Your task to perform on an android device: toggle show notifications on the lock screen Image 0: 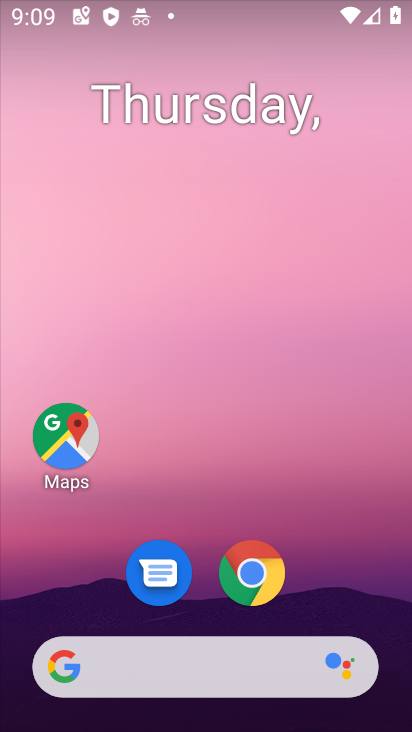
Step 0: drag from (359, 561) to (326, 250)
Your task to perform on an android device: toggle show notifications on the lock screen Image 1: 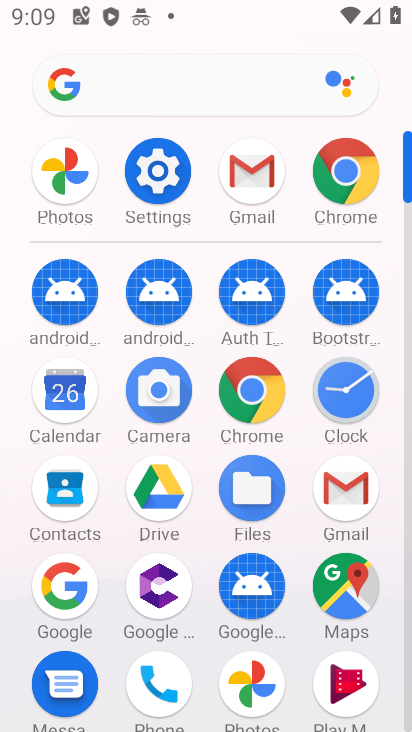
Step 1: click (160, 178)
Your task to perform on an android device: toggle show notifications on the lock screen Image 2: 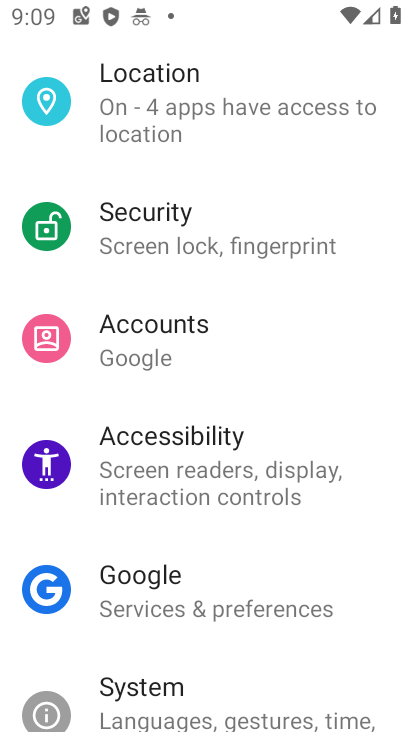
Step 2: drag from (247, 253) to (247, 551)
Your task to perform on an android device: toggle show notifications on the lock screen Image 3: 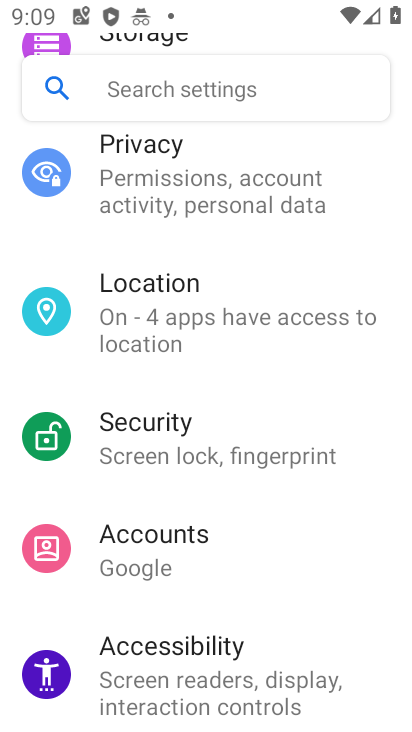
Step 3: drag from (271, 230) to (274, 544)
Your task to perform on an android device: toggle show notifications on the lock screen Image 4: 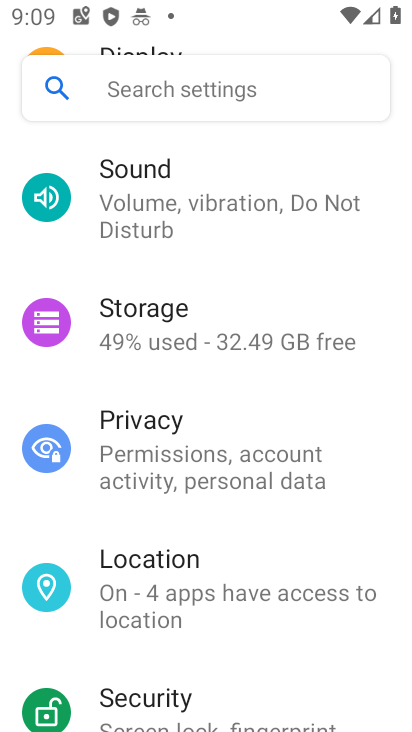
Step 4: drag from (281, 302) to (286, 534)
Your task to perform on an android device: toggle show notifications on the lock screen Image 5: 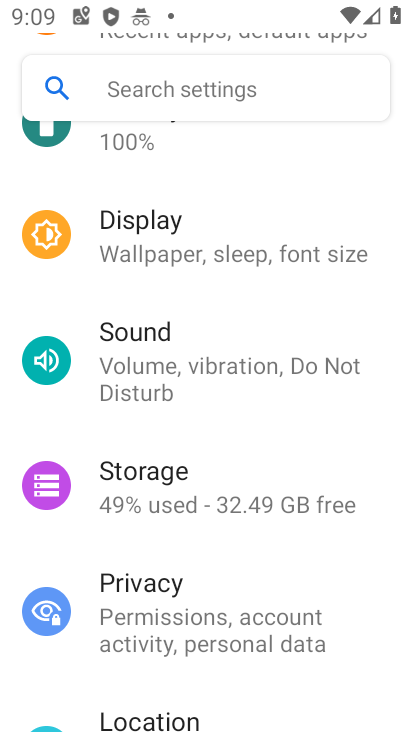
Step 5: drag from (275, 232) to (282, 557)
Your task to perform on an android device: toggle show notifications on the lock screen Image 6: 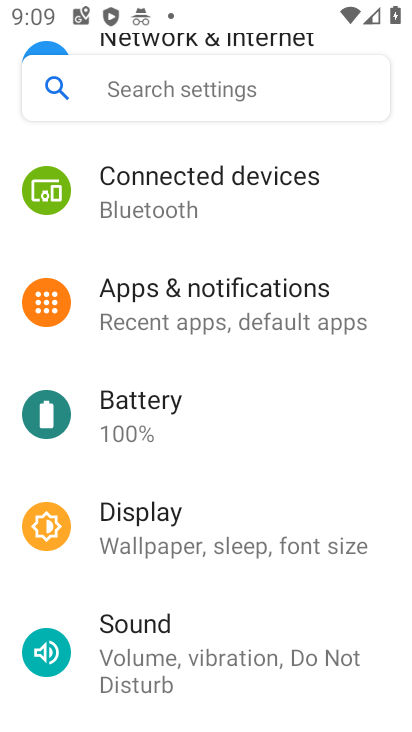
Step 6: click (257, 299)
Your task to perform on an android device: toggle show notifications on the lock screen Image 7: 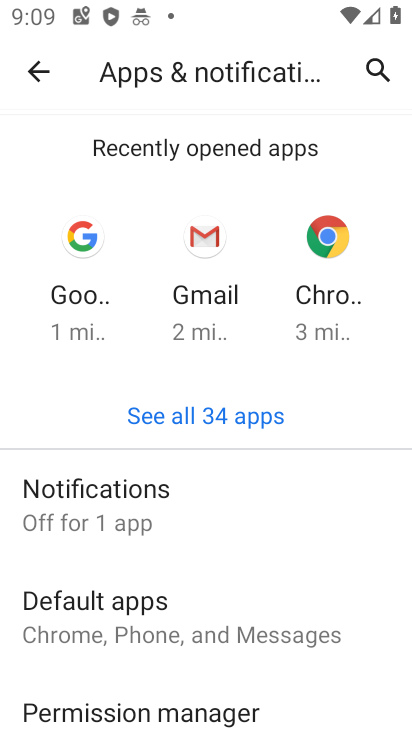
Step 7: drag from (215, 598) to (200, 303)
Your task to perform on an android device: toggle show notifications on the lock screen Image 8: 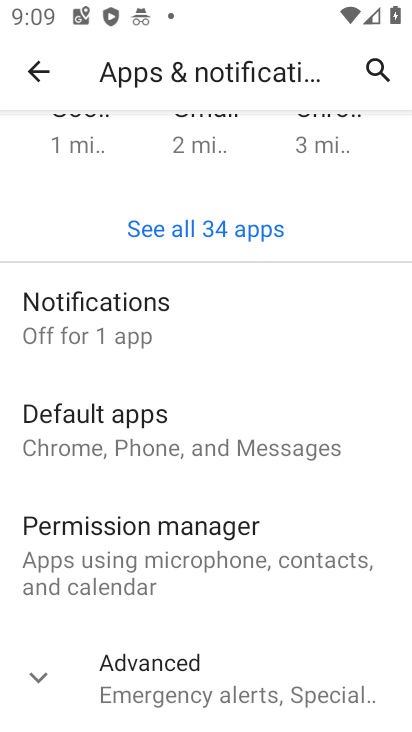
Step 8: click (142, 339)
Your task to perform on an android device: toggle show notifications on the lock screen Image 9: 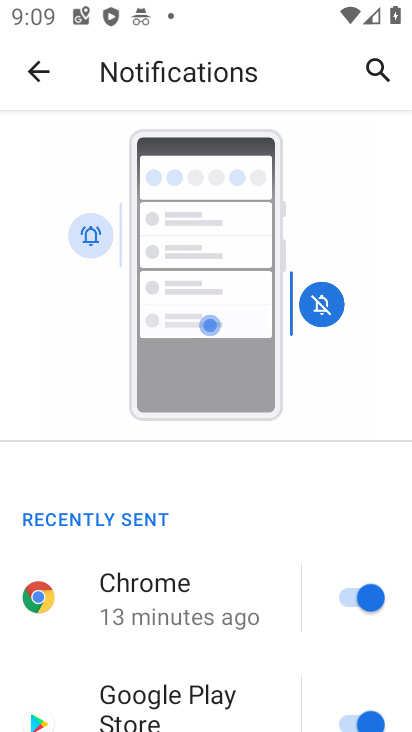
Step 9: drag from (239, 656) to (239, 362)
Your task to perform on an android device: toggle show notifications on the lock screen Image 10: 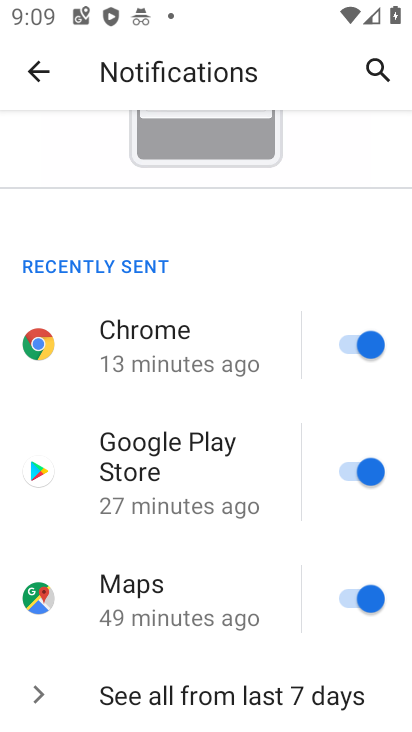
Step 10: drag from (224, 628) to (236, 348)
Your task to perform on an android device: toggle show notifications on the lock screen Image 11: 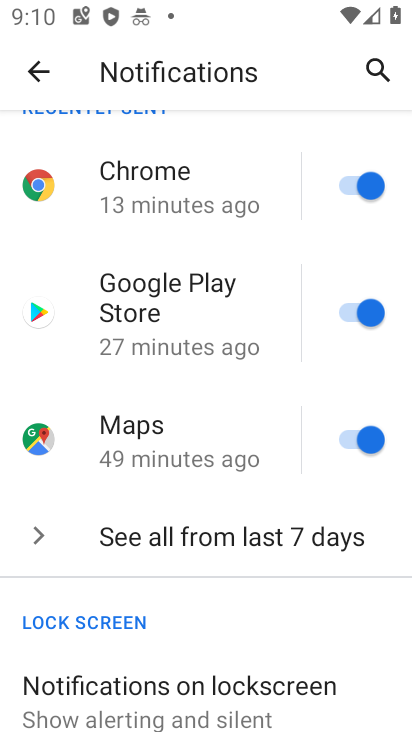
Step 11: drag from (225, 631) to (233, 389)
Your task to perform on an android device: toggle show notifications on the lock screen Image 12: 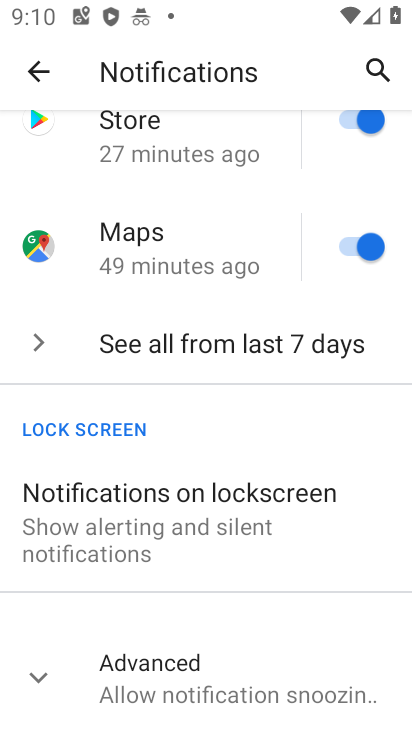
Step 12: click (219, 512)
Your task to perform on an android device: toggle show notifications on the lock screen Image 13: 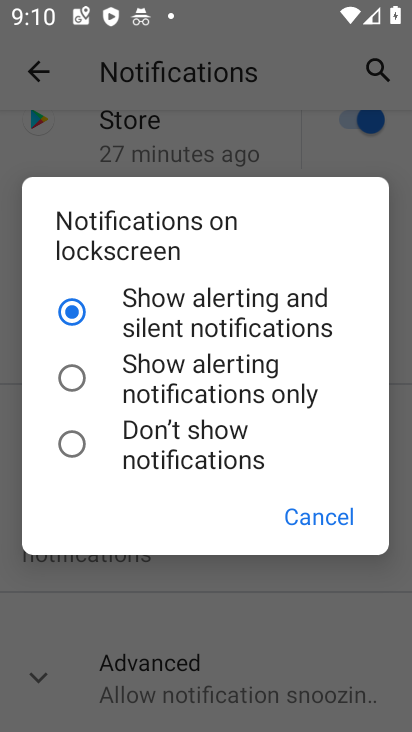
Step 13: click (72, 437)
Your task to perform on an android device: toggle show notifications on the lock screen Image 14: 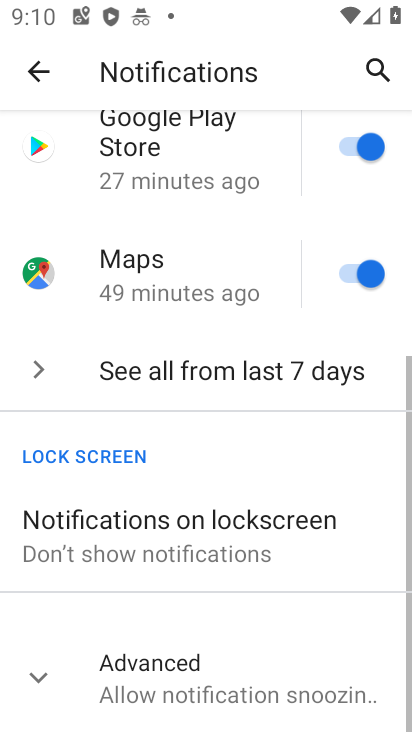
Step 14: task complete